Your task to perform on an android device: What's the weather going to be this weekend? Image 0: 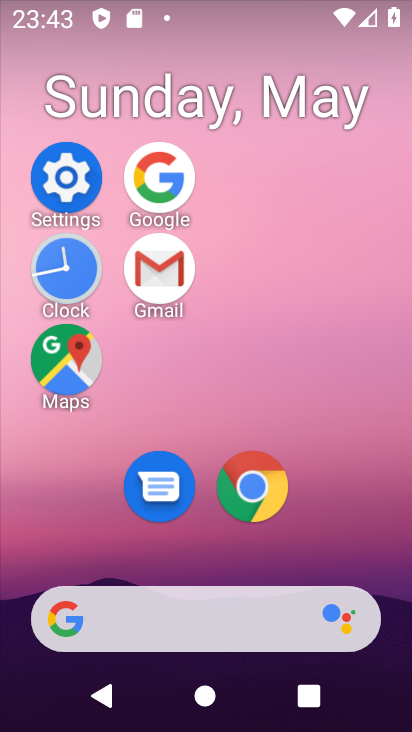
Step 0: click (148, 203)
Your task to perform on an android device: What's the weather going to be this weekend? Image 1: 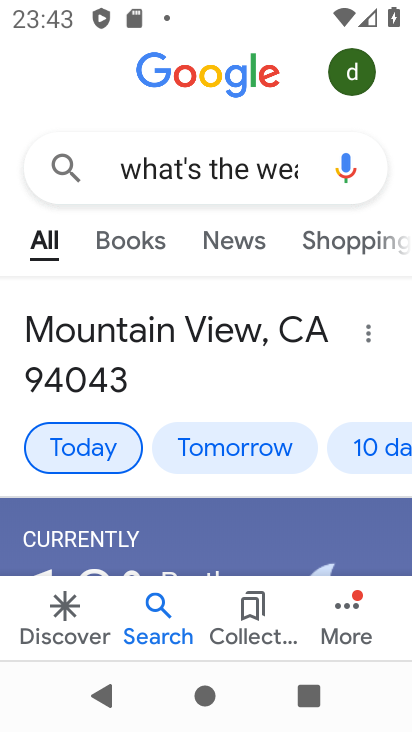
Step 1: click (363, 433)
Your task to perform on an android device: What's the weather going to be this weekend? Image 2: 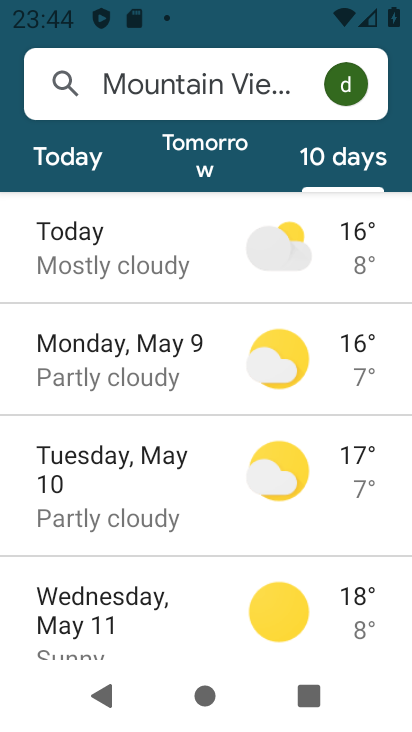
Step 2: drag from (208, 598) to (183, 282)
Your task to perform on an android device: What's the weather going to be this weekend? Image 3: 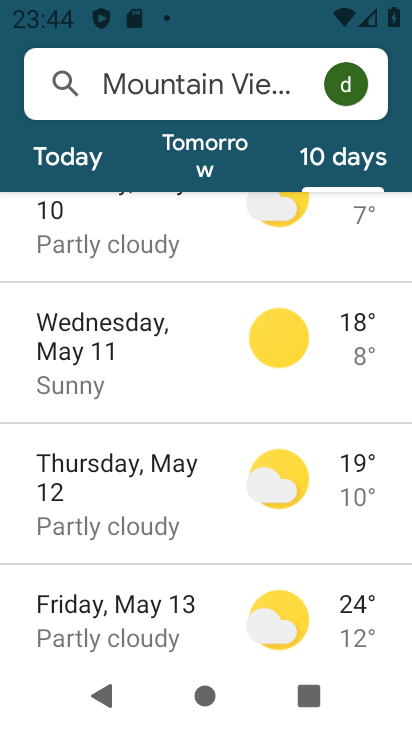
Step 3: drag from (197, 529) to (207, 240)
Your task to perform on an android device: What's the weather going to be this weekend? Image 4: 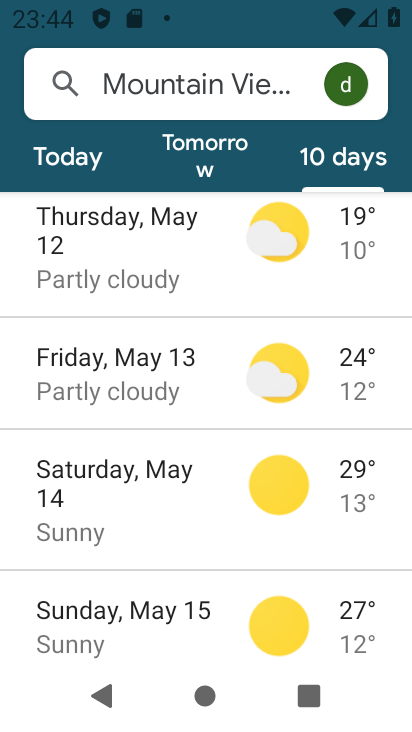
Step 4: click (144, 465)
Your task to perform on an android device: What's the weather going to be this weekend? Image 5: 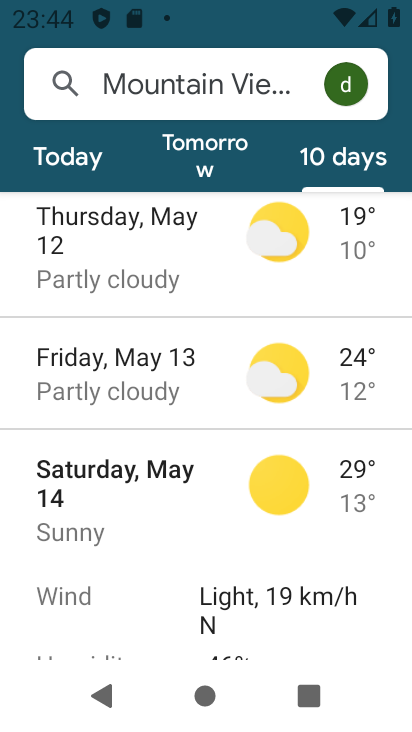
Step 5: task complete